Your task to perform on an android device: change the clock display to show seconds Image 0: 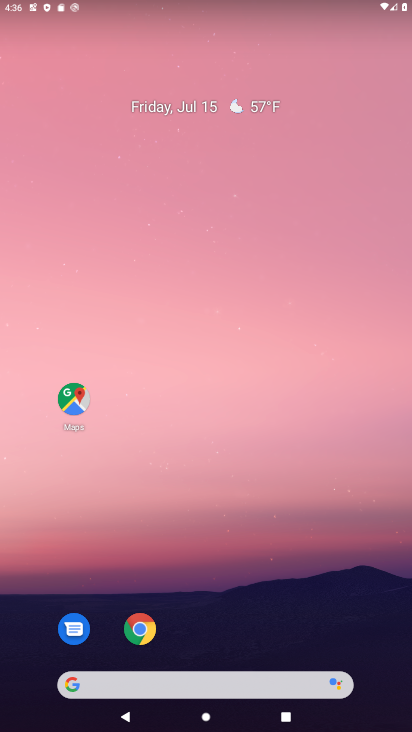
Step 0: press home button
Your task to perform on an android device: change the clock display to show seconds Image 1: 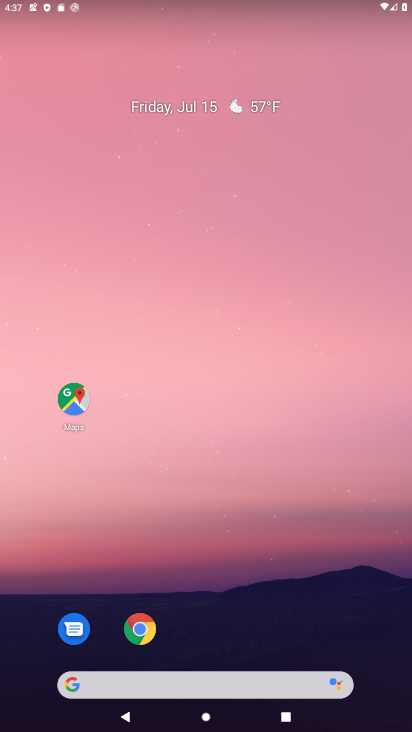
Step 1: drag from (259, 647) to (189, 86)
Your task to perform on an android device: change the clock display to show seconds Image 2: 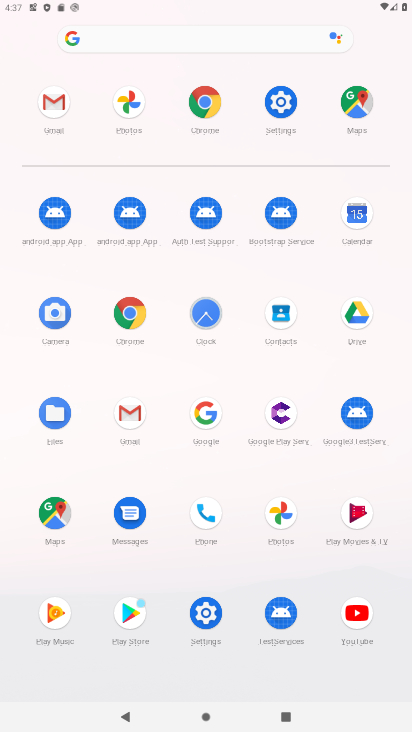
Step 2: click (198, 316)
Your task to perform on an android device: change the clock display to show seconds Image 3: 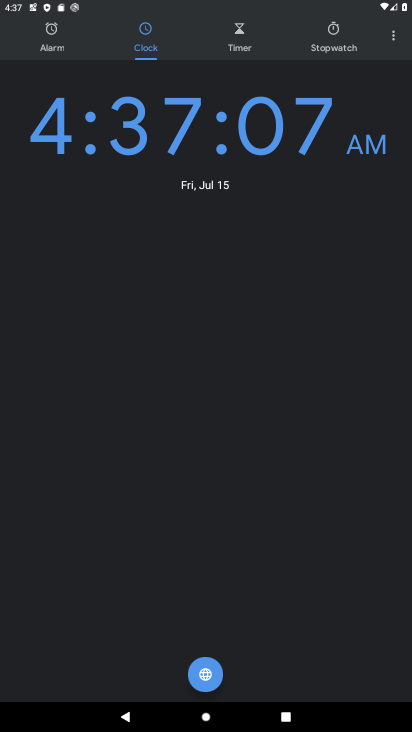
Step 3: click (396, 33)
Your task to perform on an android device: change the clock display to show seconds Image 4: 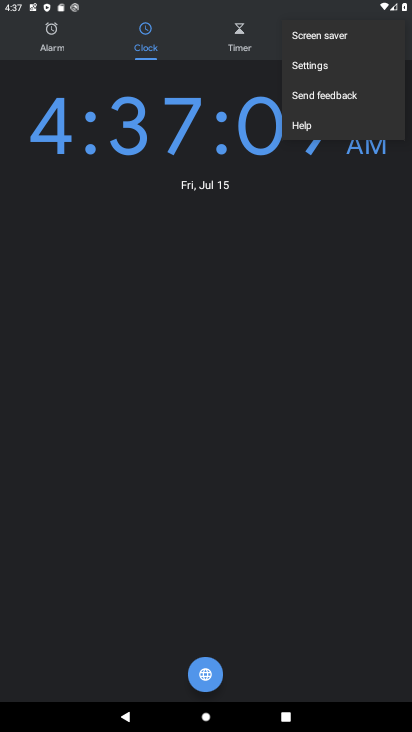
Step 4: click (329, 72)
Your task to perform on an android device: change the clock display to show seconds Image 5: 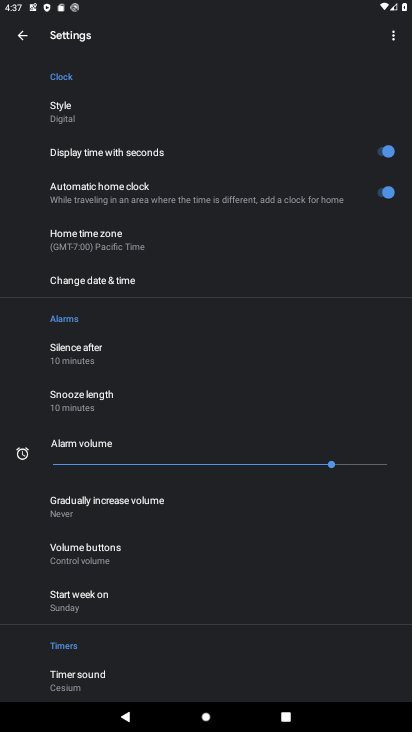
Step 5: task complete